Your task to perform on an android device: turn on javascript in the chrome app Image 0: 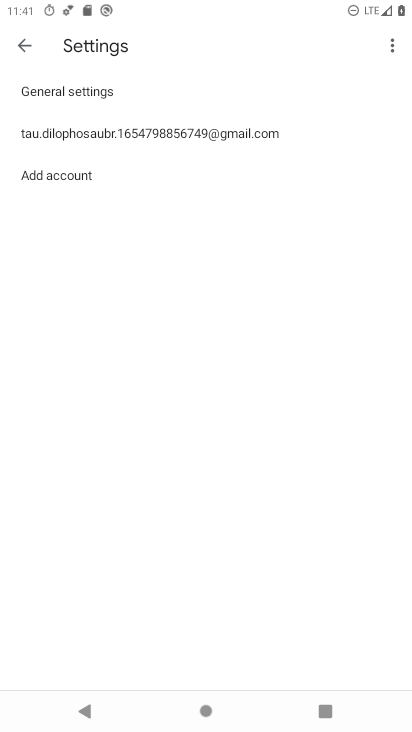
Step 0: press home button
Your task to perform on an android device: turn on javascript in the chrome app Image 1: 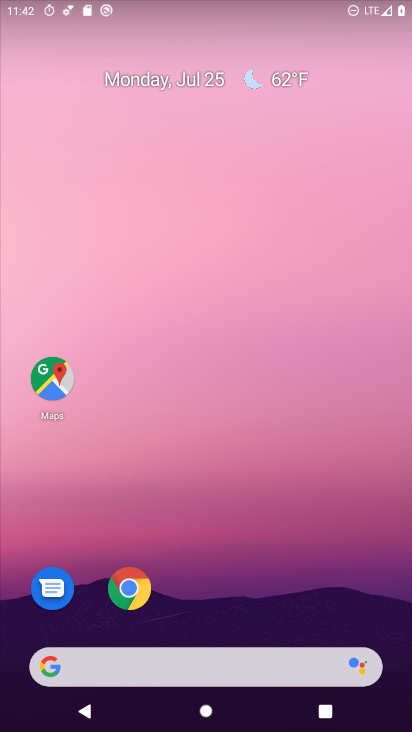
Step 1: click (125, 602)
Your task to perform on an android device: turn on javascript in the chrome app Image 2: 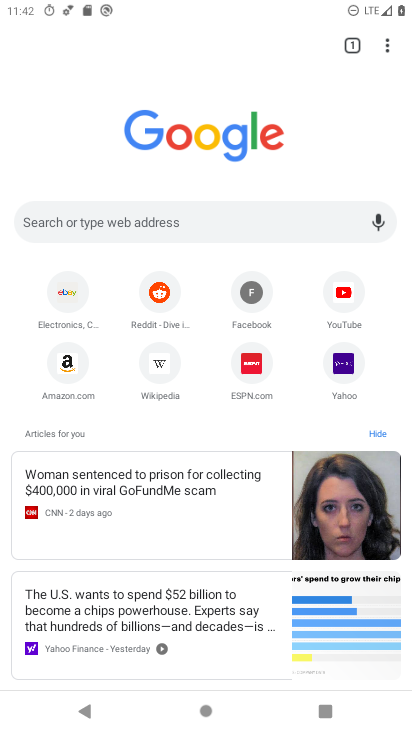
Step 2: click (391, 44)
Your task to perform on an android device: turn on javascript in the chrome app Image 3: 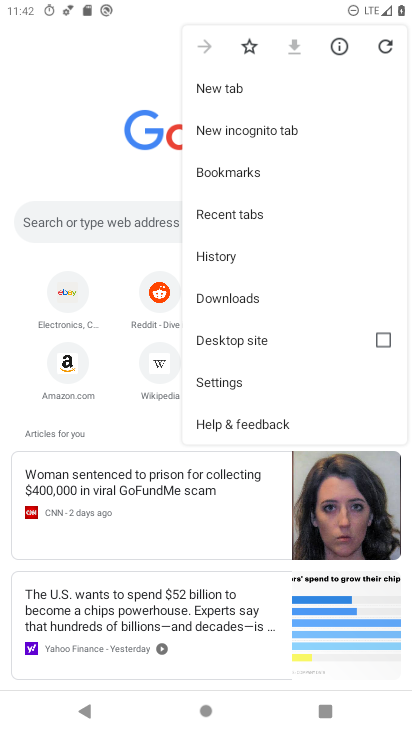
Step 3: click (225, 390)
Your task to perform on an android device: turn on javascript in the chrome app Image 4: 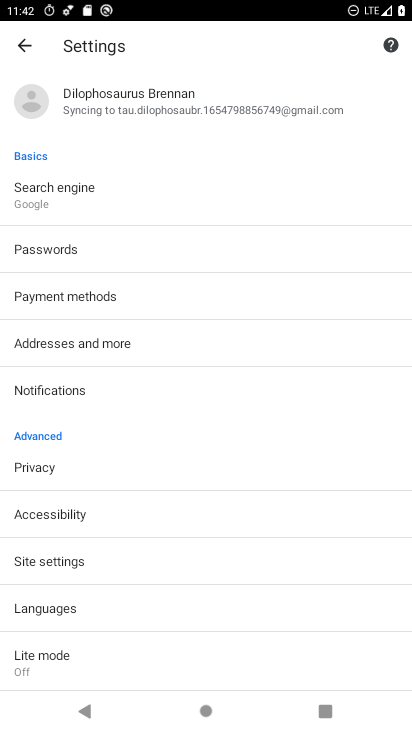
Step 4: click (49, 558)
Your task to perform on an android device: turn on javascript in the chrome app Image 5: 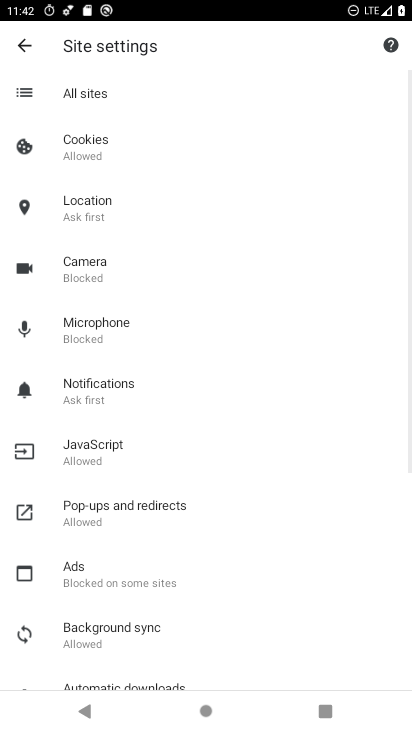
Step 5: click (92, 443)
Your task to perform on an android device: turn on javascript in the chrome app Image 6: 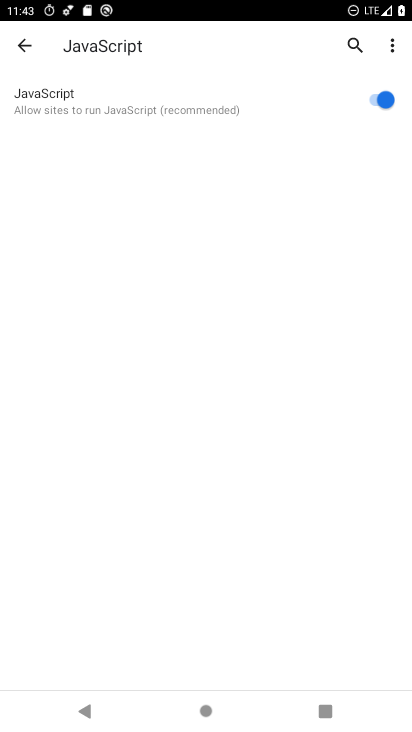
Step 6: task complete